Your task to perform on an android device: turn off location Image 0: 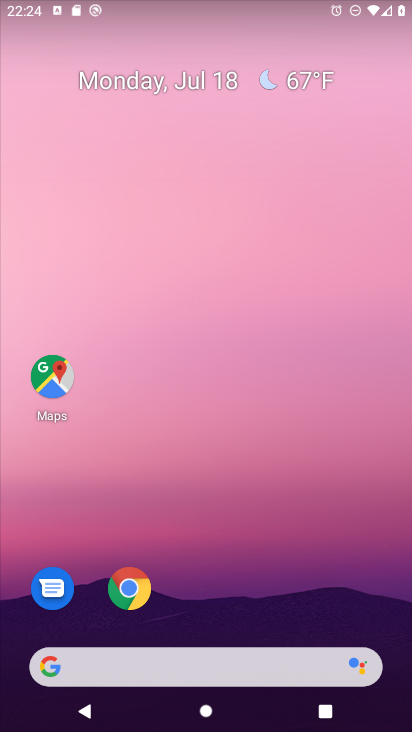
Step 0: drag from (386, 618) to (328, 98)
Your task to perform on an android device: turn off location Image 1: 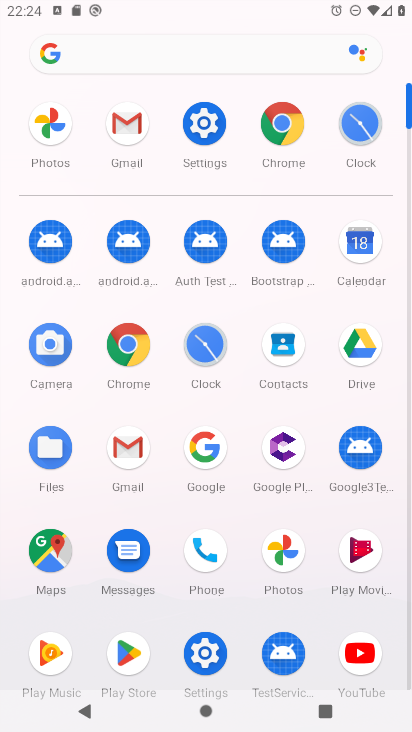
Step 1: click (205, 654)
Your task to perform on an android device: turn off location Image 2: 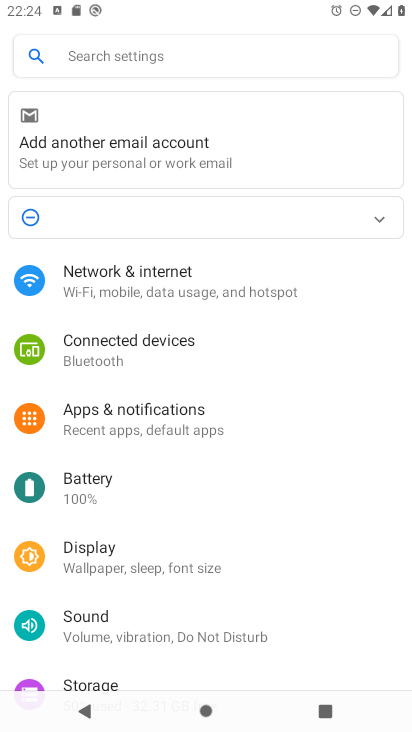
Step 2: drag from (301, 606) to (279, 175)
Your task to perform on an android device: turn off location Image 3: 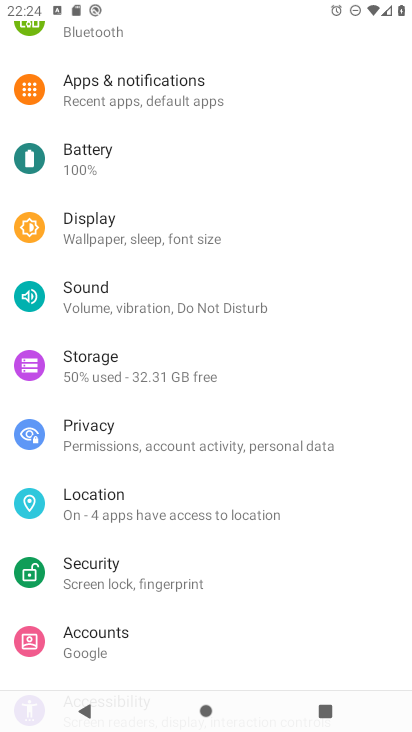
Step 3: click (103, 503)
Your task to perform on an android device: turn off location Image 4: 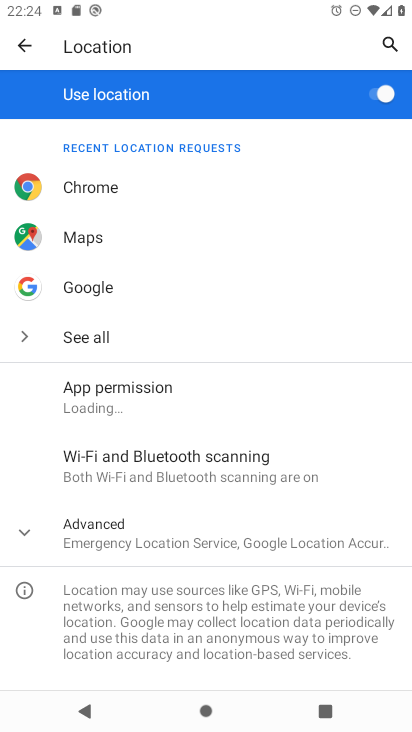
Step 4: click (370, 91)
Your task to perform on an android device: turn off location Image 5: 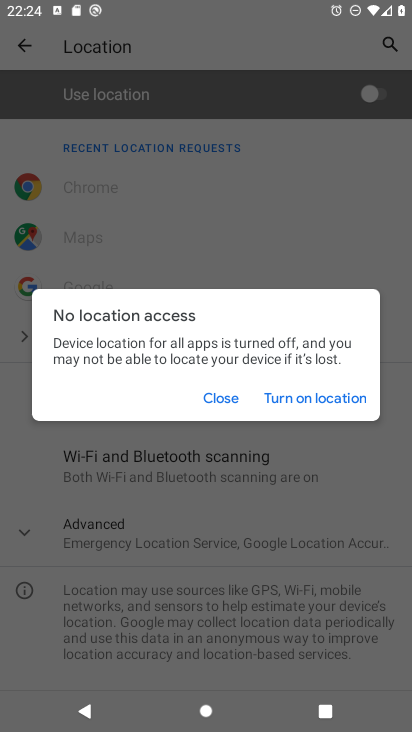
Step 5: click (221, 396)
Your task to perform on an android device: turn off location Image 6: 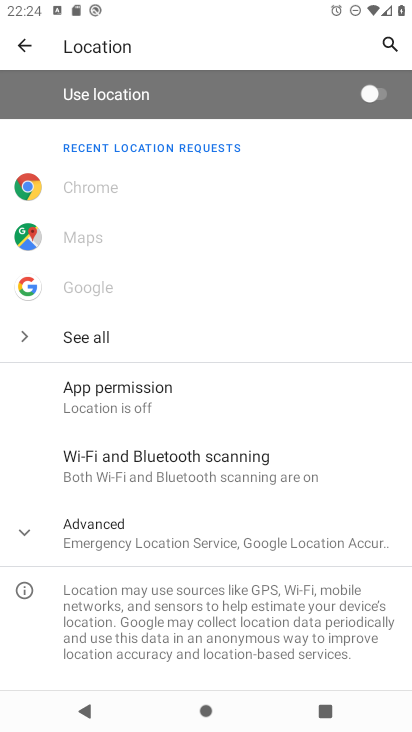
Step 6: task complete